Your task to perform on an android device: turn on airplane mode Image 0: 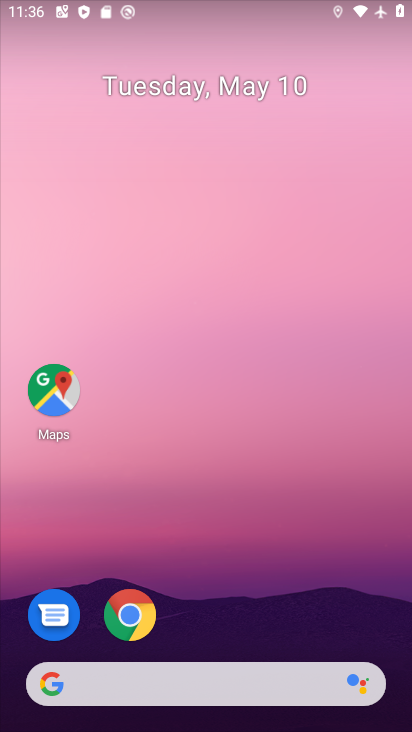
Step 0: drag from (245, 507) to (230, 1)
Your task to perform on an android device: turn on airplane mode Image 1: 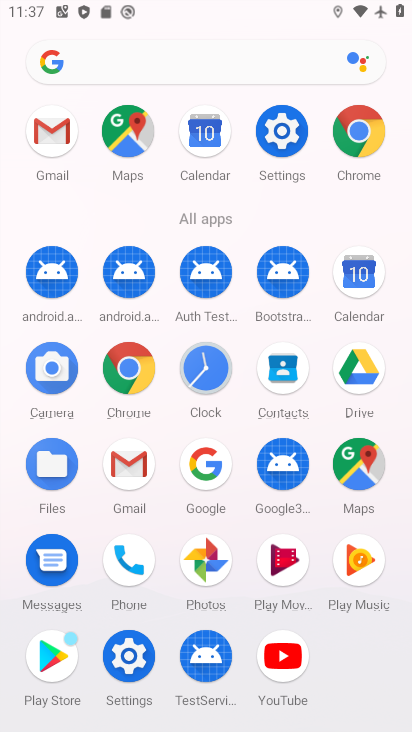
Step 1: click (129, 652)
Your task to perform on an android device: turn on airplane mode Image 2: 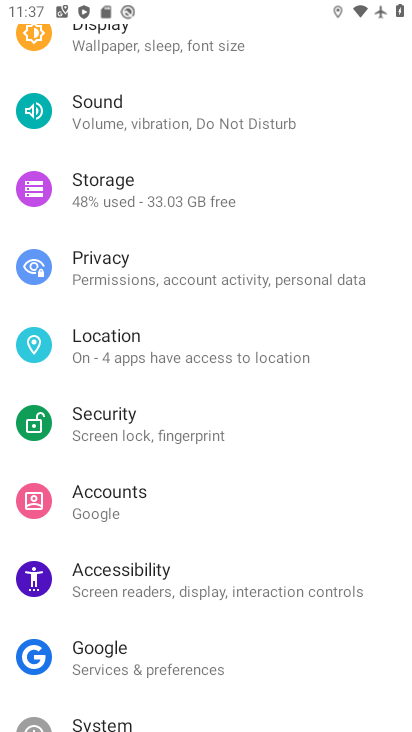
Step 2: drag from (235, 503) to (241, 100)
Your task to perform on an android device: turn on airplane mode Image 3: 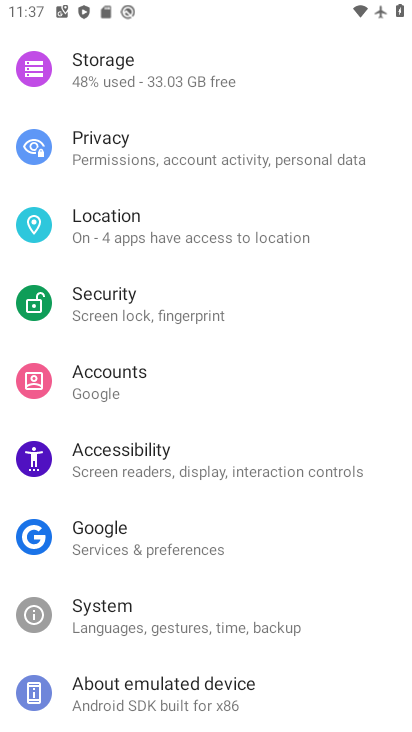
Step 3: drag from (238, 577) to (222, 193)
Your task to perform on an android device: turn on airplane mode Image 4: 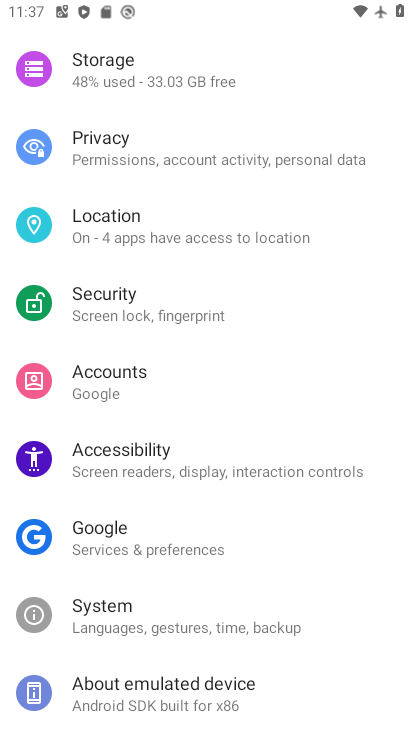
Step 4: drag from (230, 158) to (253, 609)
Your task to perform on an android device: turn on airplane mode Image 5: 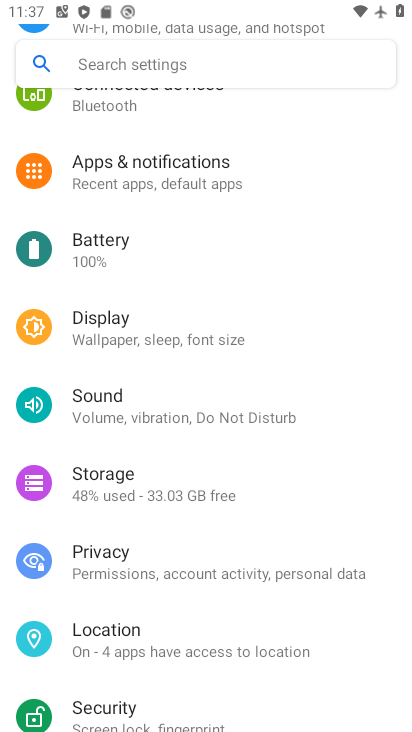
Step 5: drag from (225, 184) to (236, 539)
Your task to perform on an android device: turn on airplane mode Image 6: 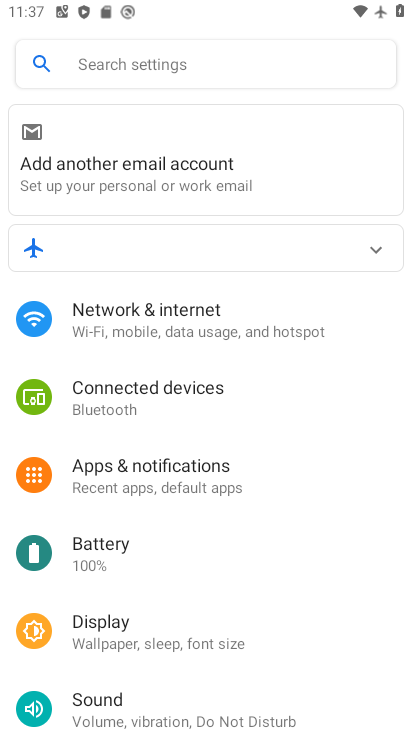
Step 6: click (220, 324)
Your task to perform on an android device: turn on airplane mode Image 7: 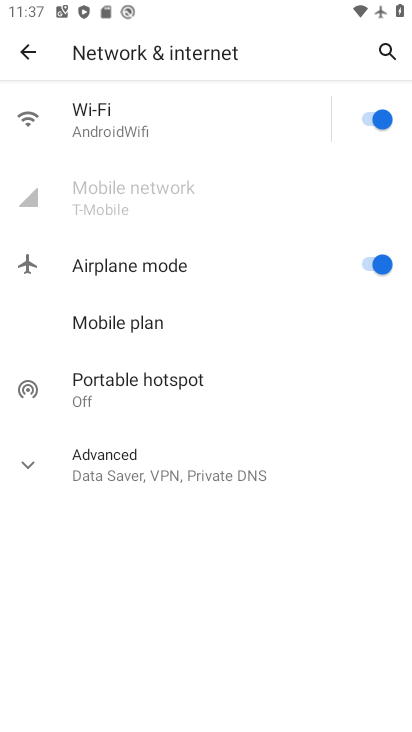
Step 7: task complete